Your task to perform on an android device: clear all cookies in the chrome app Image 0: 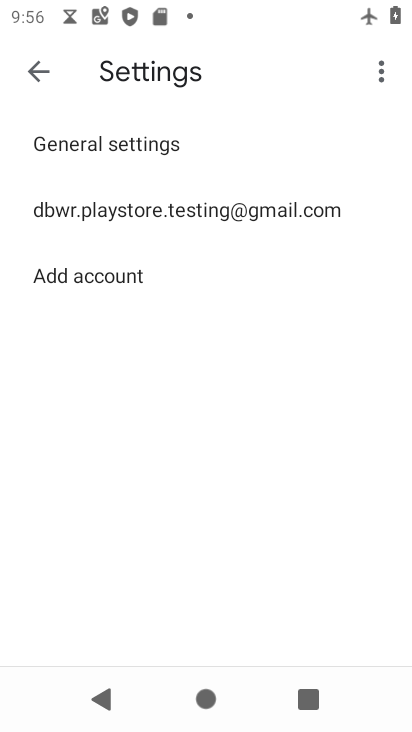
Step 0: press home button
Your task to perform on an android device: clear all cookies in the chrome app Image 1: 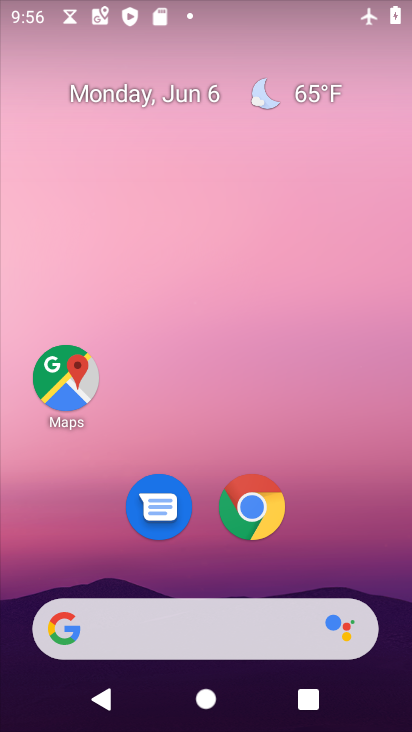
Step 1: click (247, 505)
Your task to perform on an android device: clear all cookies in the chrome app Image 2: 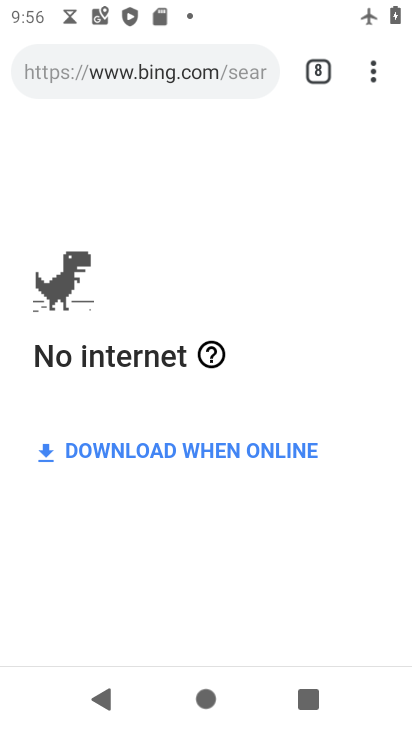
Step 2: click (389, 60)
Your task to perform on an android device: clear all cookies in the chrome app Image 3: 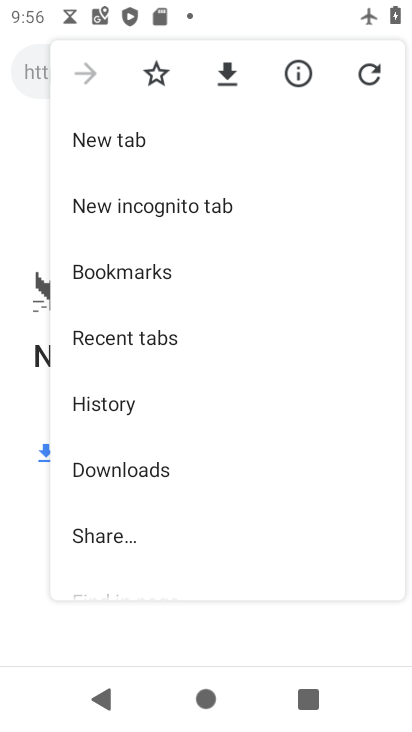
Step 3: drag from (191, 496) to (203, 202)
Your task to perform on an android device: clear all cookies in the chrome app Image 4: 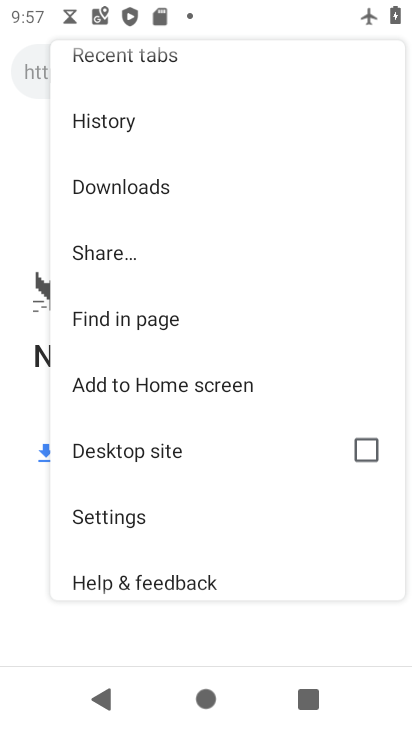
Step 4: click (174, 510)
Your task to perform on an android device: clear all cookies in the chrome app Image 5: 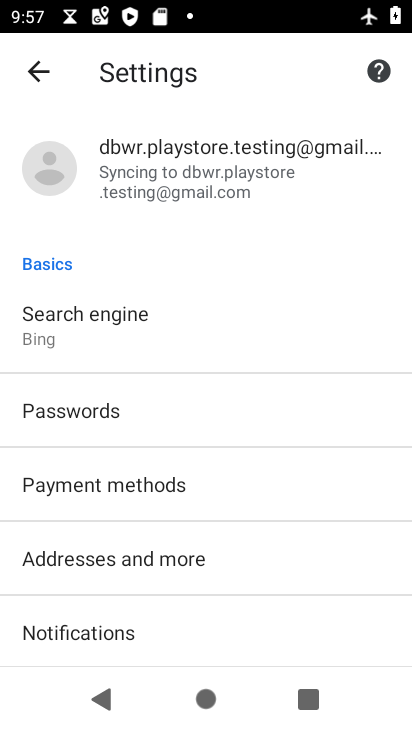
Step 5: drag from (184, 580) to (194, 236)
Your task to perform on an android device: clear all cookies in the chrome app Image 6: 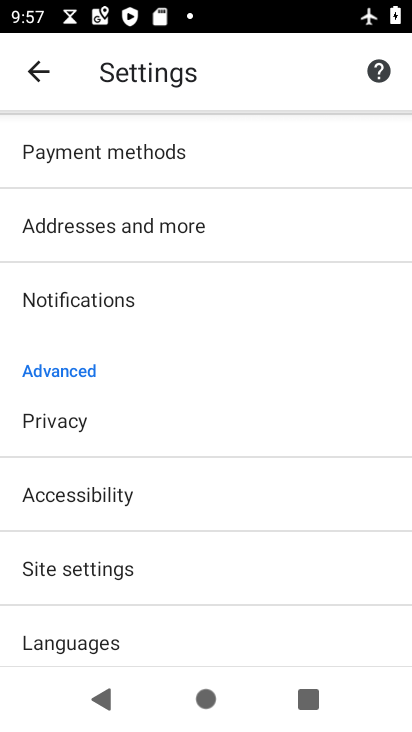
Step 6: drag from (150, 600) to (181, 296)
Your task to perform on an android device: clear all cookies in the chrome app Image 7: 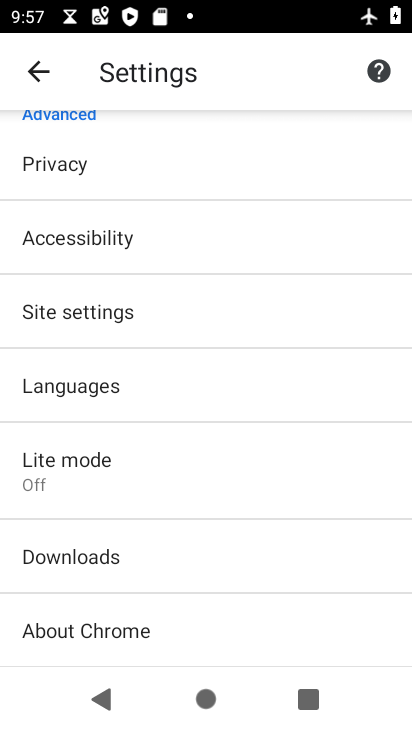
Step 7: drag from (173, 603) to (183, 475)
Your task to perform on an android device: clear all cookies in the chrome app Image 8: 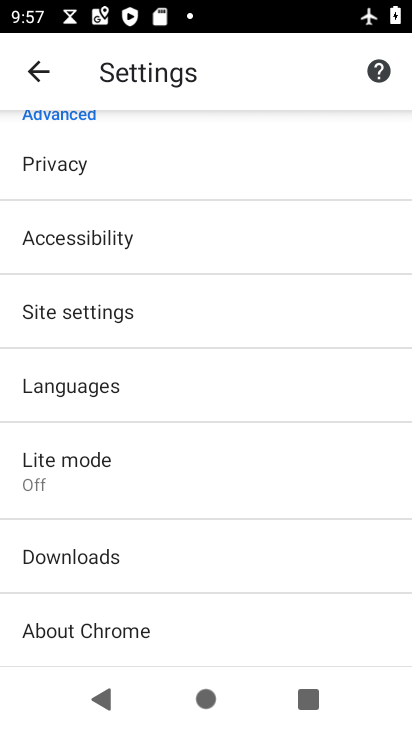
Step 8: click (96, 167)
Your task to perform on an android device: clear all cookies in the chrome app Image 9: 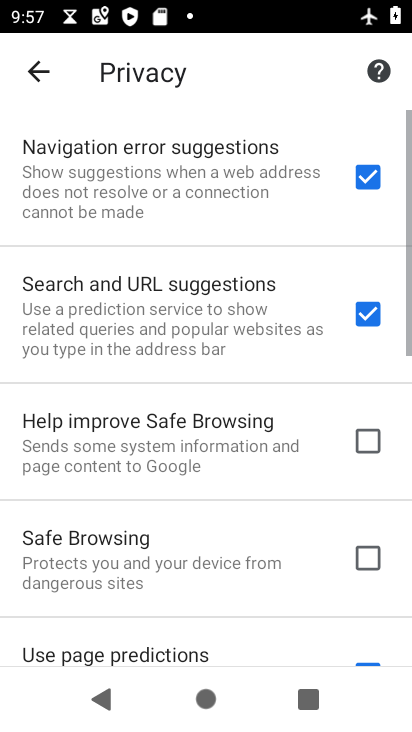
Step 9: drag from (177, 626) to (187, 130)
Your task to perform on an android device: clear all cookies in the chrome app Image 10: 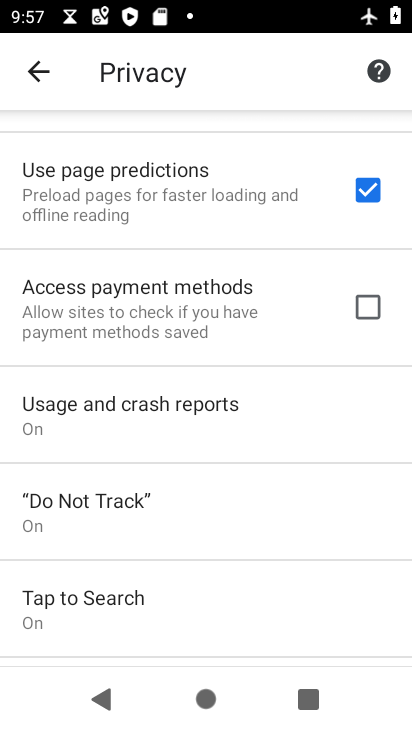
Step 10: drag from (156, 626) to (185, 182)
Your task to perform on an android device: clear all cookies in the chrome app Image 11: 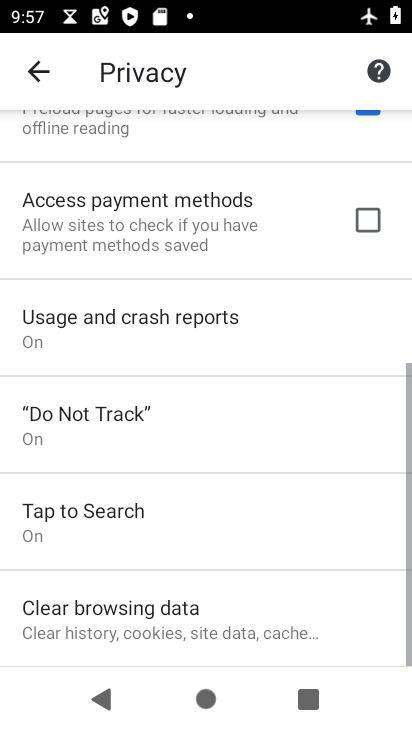
Step 11: click (193, 618)
Your task to perform on an android device: clear all cookies in the chrome app Image 12: 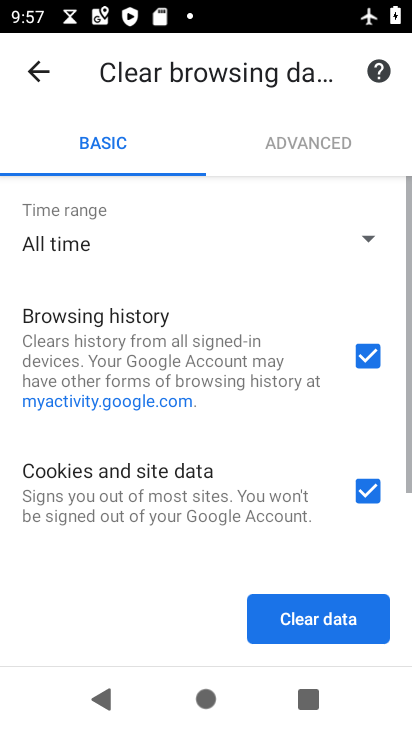
Step 12: click (324, 609)
Your task to perform on an android device: clear all cookies in the chrome app Image 13: 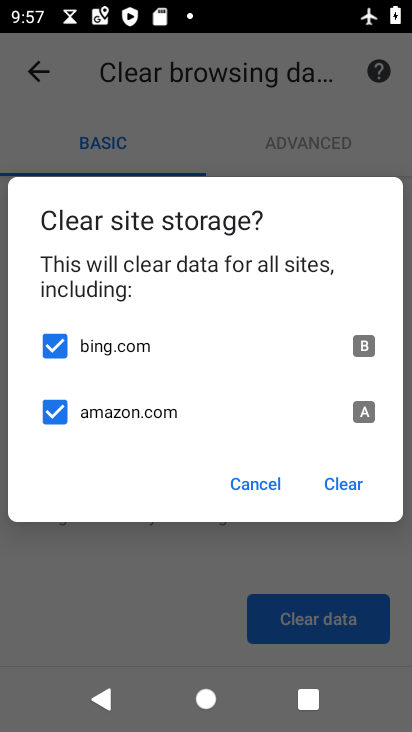
Step 13: click (329, 475)
Your task to perform on an android device: clear all cookies in the chrome app Image 14: 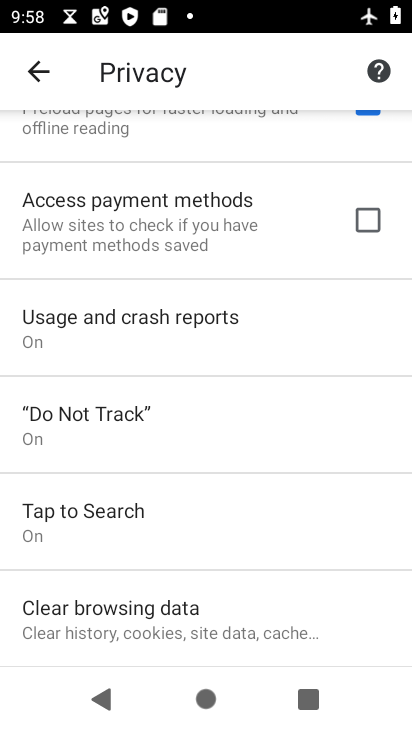
Step 14: task complete